Your task to perform on an android device: open a new tab in the chrome app Image 0: 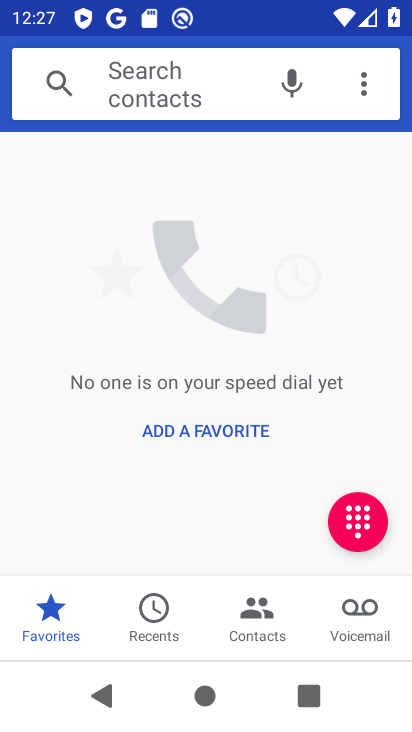
Step 0: press home button
Your task to perform on an android device: open a new tab in the chrome app Image 1: 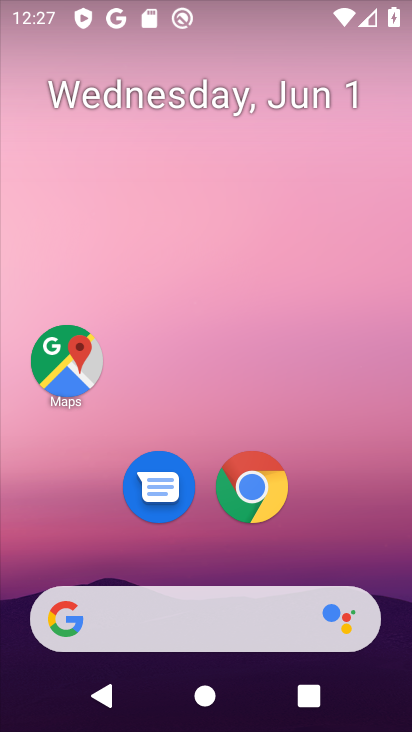
Step 1: click (244, 487)
Your task to perform on an android device: open a new tab in the chrome app Image 2: 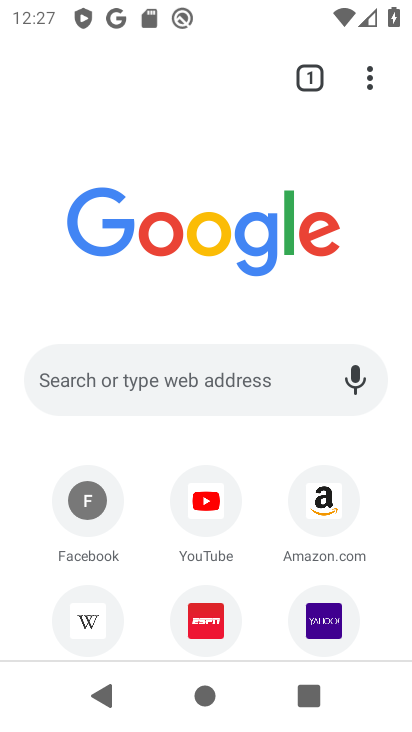
Step 2: click (366, 74)
Your task to perform on an android device: open a new tab in the chrome app Image 3: 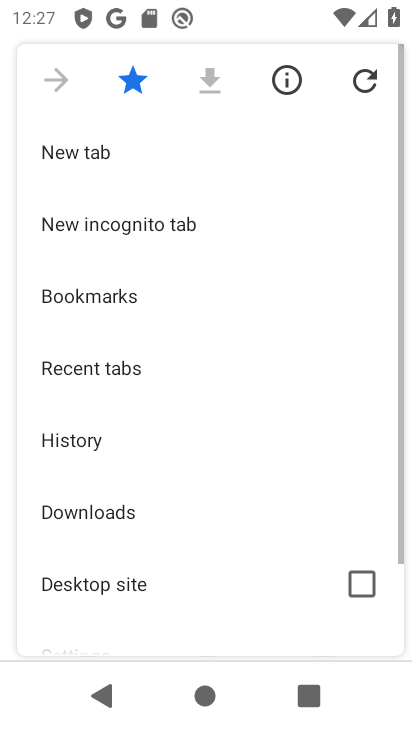
Step 3: click (101, 147)
Your task to perform on an android device: open a new tab in the chrome app Image 4: 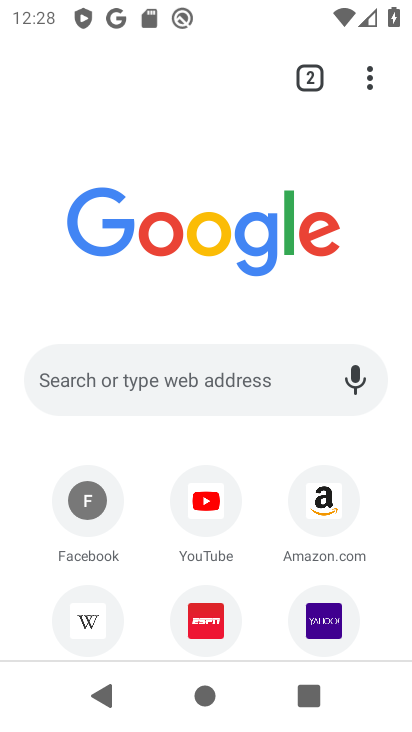
Step 4: task complete